Your task to perform on an android device: Clear the cart on amazon. Image 0: 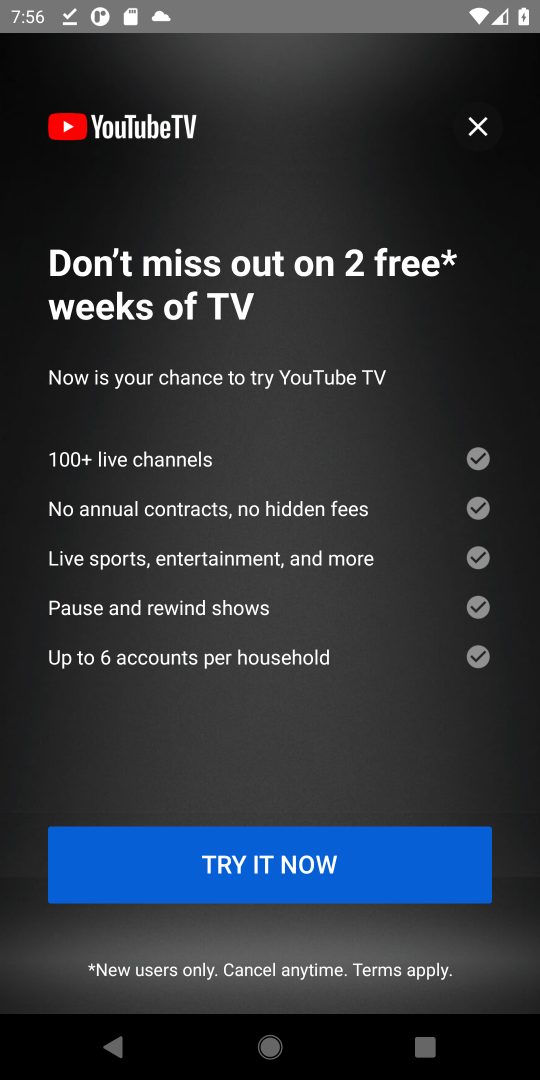
Step 0: press home button
Your task to perform on an android device: Clear the cart on amazon. Image 1: 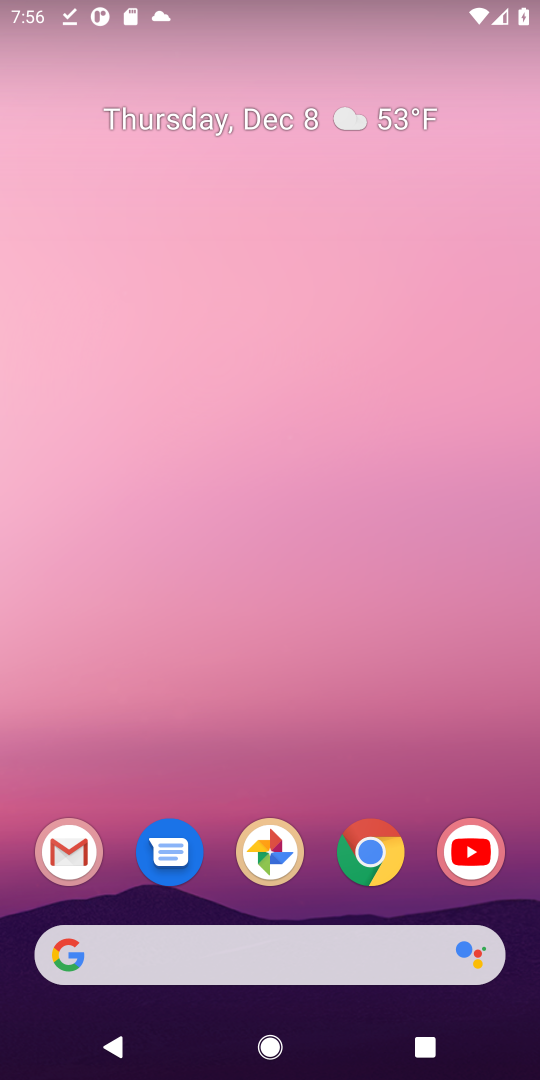
Step 1: click (358, 944)
Your task to perform on an android device: Clear the cart on amazon. Image 2: 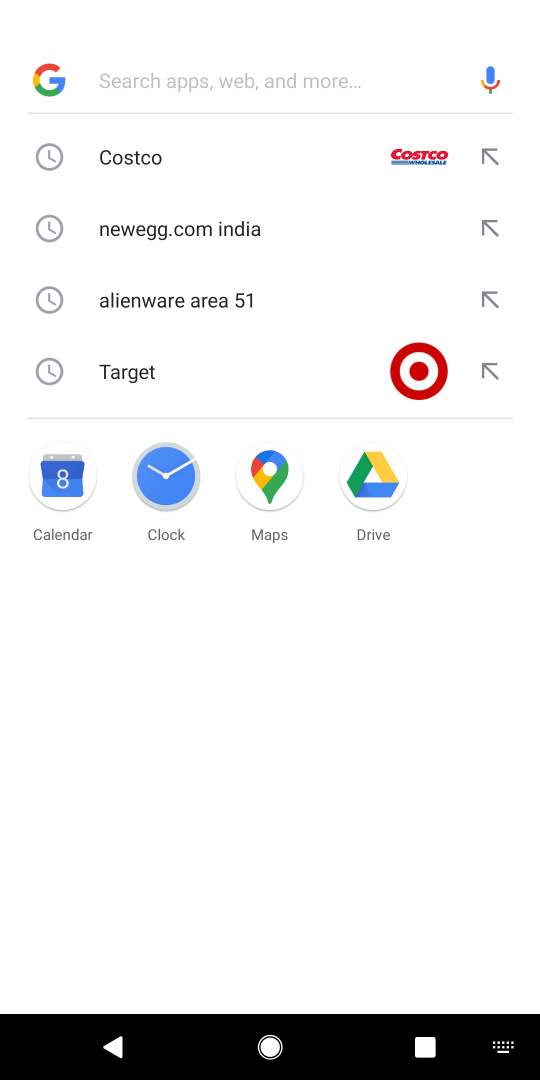
Step 2: type "amazon"
Your task to perform on an android device: Clear the cart on amazon. Image 3: 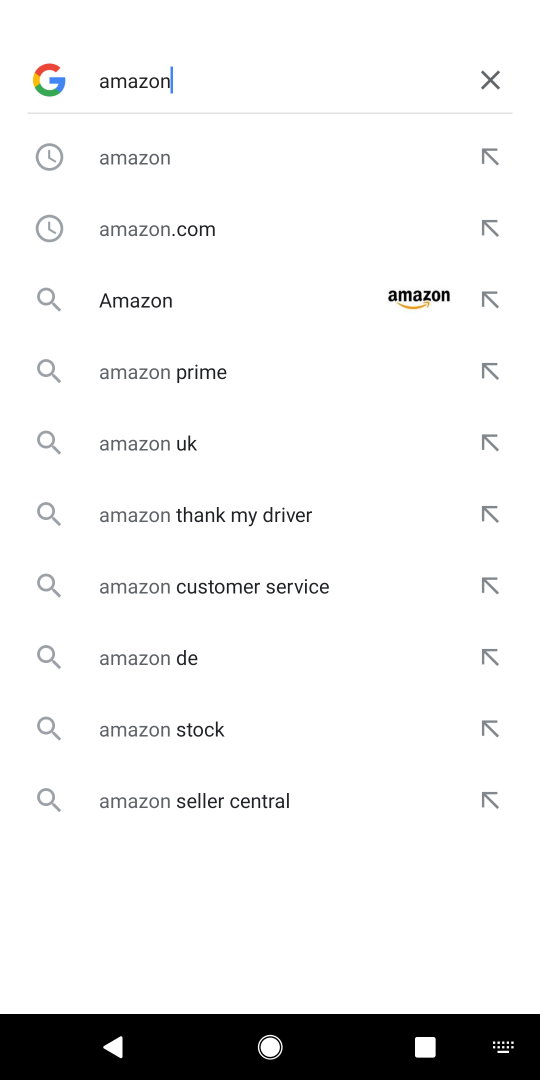
Step 3: click (213, 304)
Your task to perform on an android device: Clear the cart on amazon. Image 4: 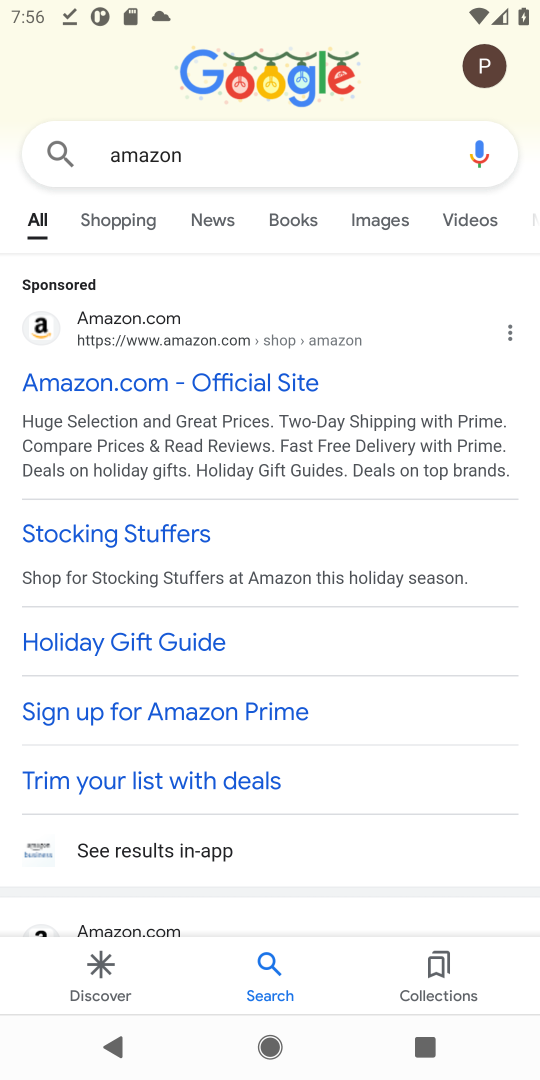
Step 4: click (126, 373)
Your task to perform on an android device: Clear the cart on amazon. Image 5: 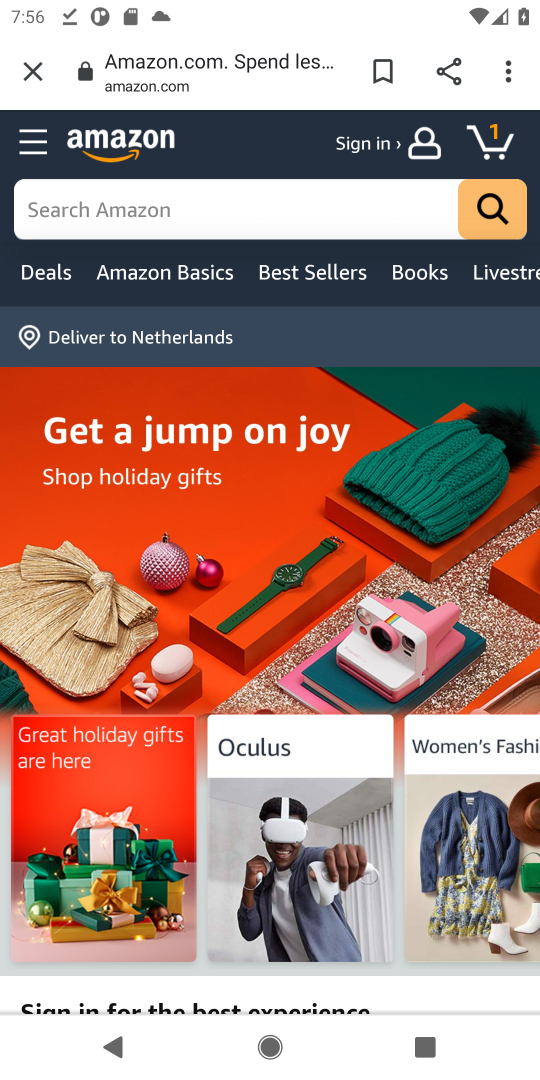
Step 5: click (280, 220)
Your task to perform on an android device: Clear the cart on amazon. Image 6: 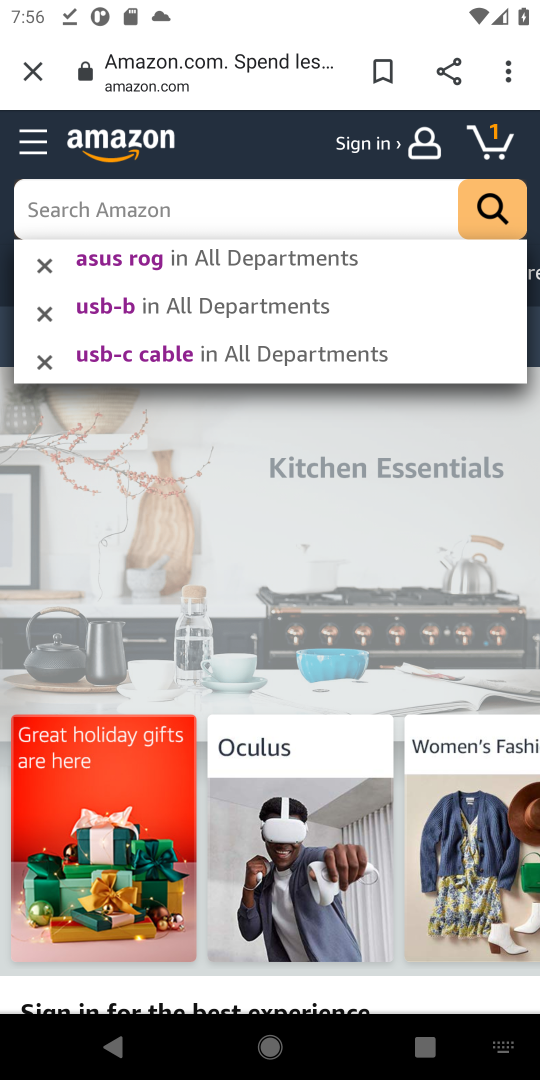
Step 6: click (499, 151)
Your task to perform on an android device: Clear the cart on amazon. Image 7: 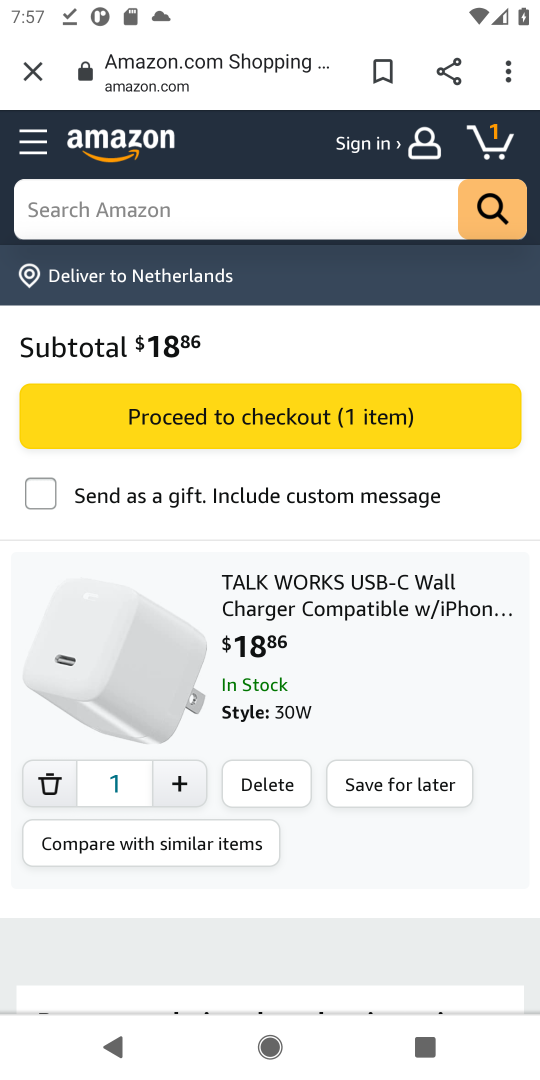
Step 7: click (250, 778)
Your task to perform on an android device: Clear the cart on amazon. Image 8: 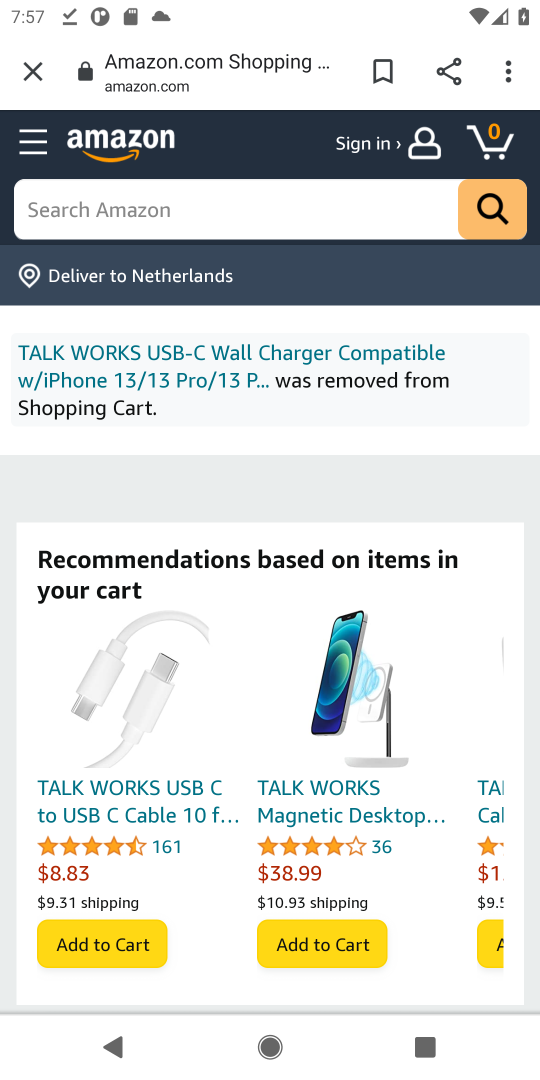
Step 8: task complete